Your task to perform on an android device: Show the shopping cart on amazon. Search for razer blade on amazon, select the first entry, add it to the cart, then select checkout. Image 0: 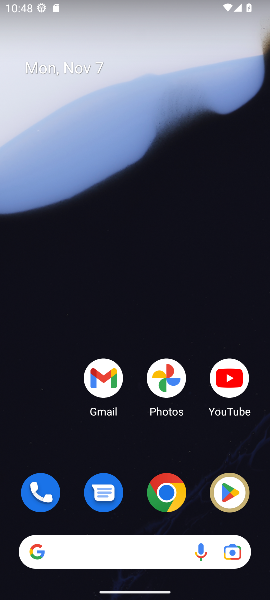
Step 0: drag from (135, 462) to (162, 66)
Your task to perform on an android device: Show the shopping cart on amazon. Search for razer blade on amazon, select the first entry, add it to the cart, then select checkout. Image 1: 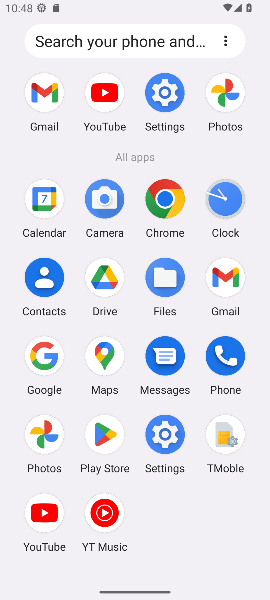
Step 1: click (159, 199)
Your task to perform on an android device: Show the shopping cart on amazon. Search for razer blade on amazon, select the first entry, add it to the cart, then select checkout. Image 2: 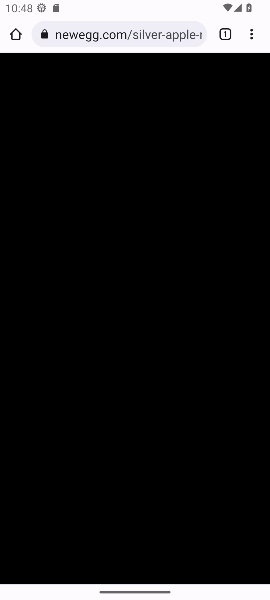
Step 2: click (133, 29)
Your task to perform on an android device: Show the shopping cart on amazon. Search for razer blade on amazon, select the first entry, add it to the cart, then select checkout. Image 3: 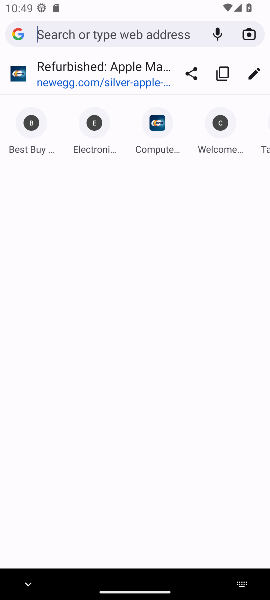
Step 3: type "amazon.com"
Your task to perform on an android device: Show the shopping cart on amazon. Search for razer blade on amazon, select the first entry, add it to the cart, then select checkout. Image 4: 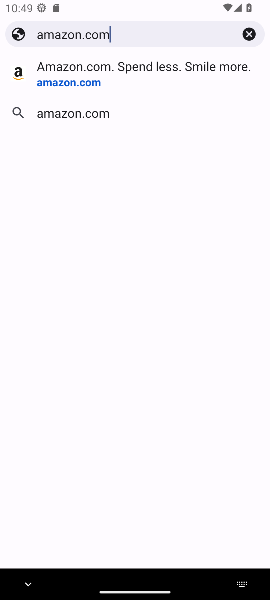
Step 4: press enter
Your task to perform on an android device: Show the shopping cart on amazon. Search for razer blade on amazon, select the first entry, add it to the cart, then select checkout. Image 5: 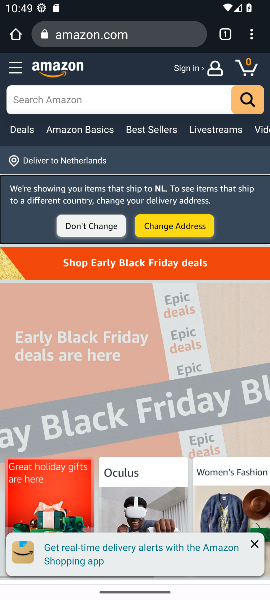
Step 5: click (244, 65)
Your task to perform on an android device: Show the shopping cart on amazon. Search for razer blade on amazon, select the first entry, add it to the cart, then select checkout. Image 6: 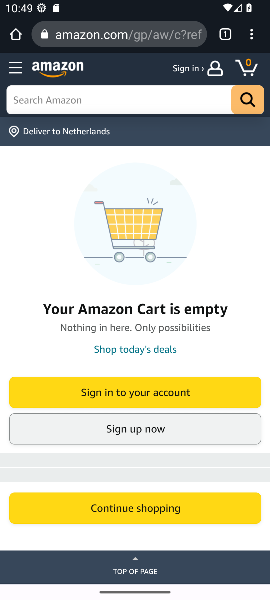
Step 6: click (140, 105)
Your task to perform on an android device: Show the shopping cart on amazon. Search for razer blade on amazon, select the first entry, add it to the cart, then select checkout. Image 7: 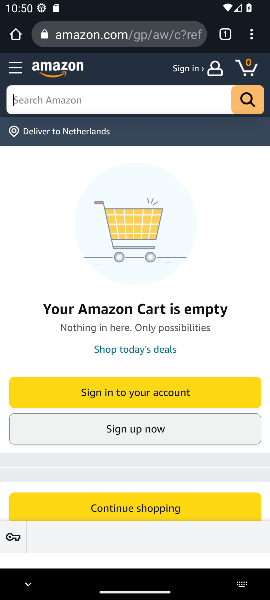
Step 7: type "razer blade"
Your task to perform on an android device: Show the shopping cart on amazon. Search for razer blade on amazon, select the first entry, add it to the cart, then select checkout. Image 8: 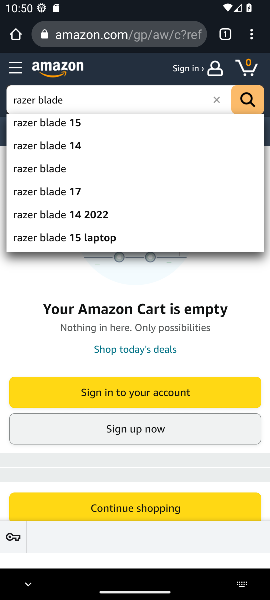
Step 8: press enter
Your task to perform on an android device: Show the shopping cart on amazon. Search for razer blade on amazon, select the first entry, add it to the cart, then select checkout. Image 9: 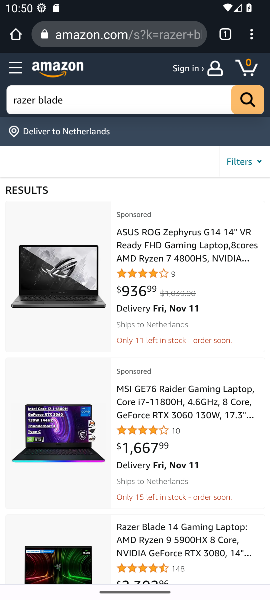
Step 9: drag from (182, 432) to (159, 195)
Your task to perform on an android device: Show the shopping cart on amazon. Search for razer blade on amazon, select the first entry, add it to the cart, then select checkout. Image 10: 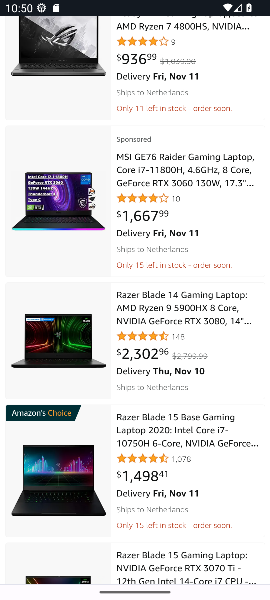
Step 10: click (187, 309)
Your task to perform on an android device: Show the shopping cart on amazon. Search for razer blade on amazon, select the first entry, add it to the cart, then select checkout. Image 11: 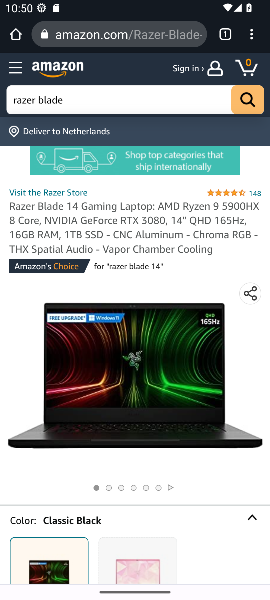
Step 11: drag from (126, 457) to (135, 132)
Your task to perform on an android device: Show the shopping cart on amazon. Search for razer blade on amazon, select the first entry, add it to the cart, then select checkout. Image 12: 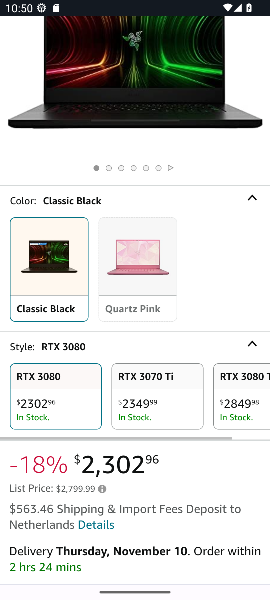
Step 12: drag from (161, 476) to (170, 159)
Your task to perform on an android device: Show the shopping cart on amazon. Search for razer blade on amazon, select the first entry, add it to the cart, then select checkout. Image 13: 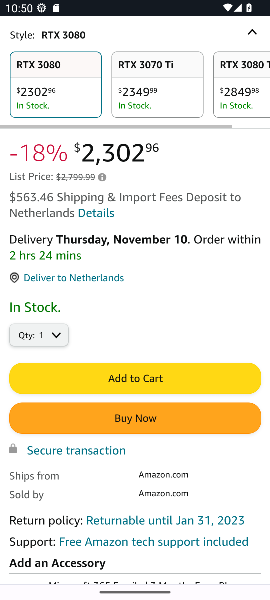
Step 13: click (170, 383)
Your task to perform on an android device: Show the shopping cart on amazon. Search for razer blade on amazon, select the first entry, add it to the cart, then select checkout. Image 14: 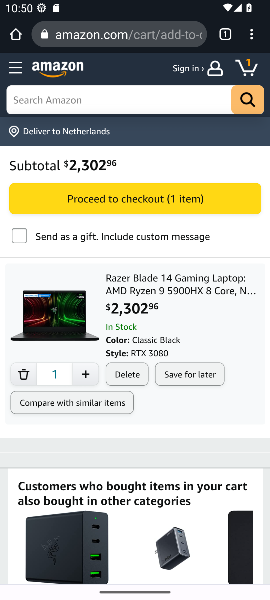
Step 14: click (194, 202)
Your task to perform on an android device: Show the shopping cart on amazon. Search for razer blade on amazon, select the first entry, add it to the cart, then select checkout. Image 15: 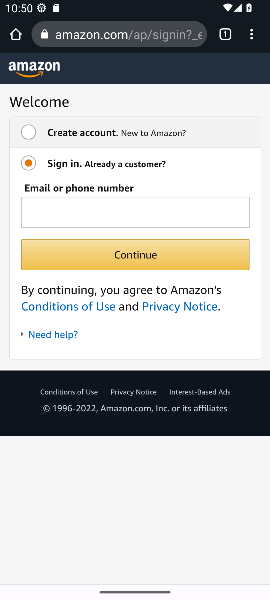
Step 15: task complete